Your task to perform on an android device: check storage Image 0: 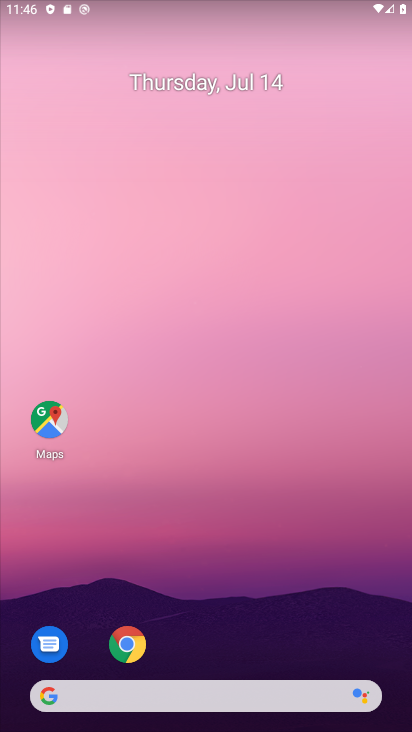
Step 0: drag from (212, 673) to (137, 305)
Your task to perform on an android device: check storage Image 1: 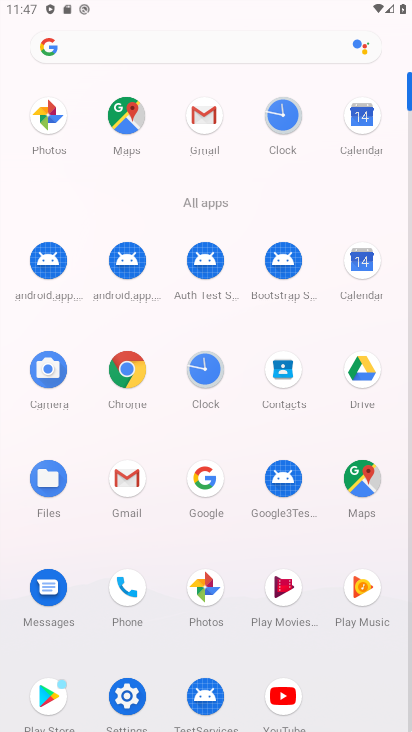
Step 1: click (120, 695)
Your task to perform on an android device: check storage Image 2: 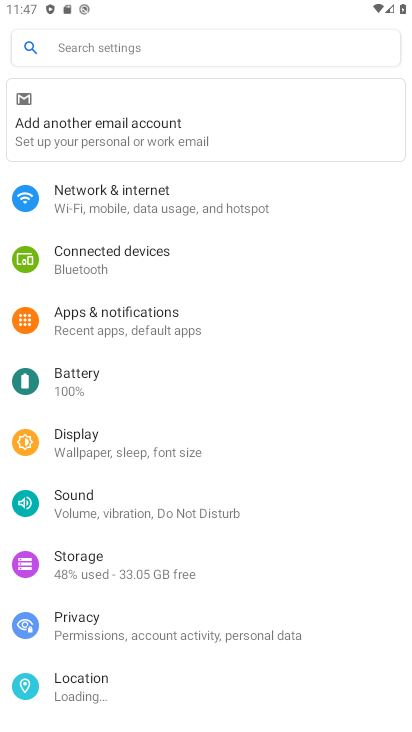
Step 2: click (50, 563)
Your task to perform on an android device: check storage Image 3: 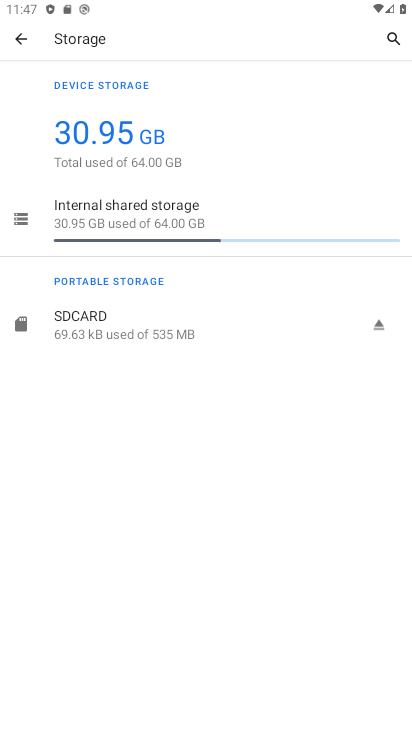
Step 3: click (145, 243)
Your task to perform on an android device: check storage Image 4: 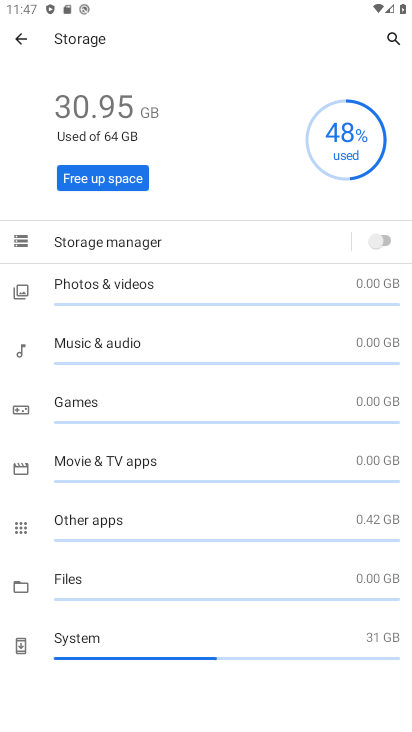
Step 4: task complete